Your task to perform on an android device: stop showing notifications on the lock screen Image 0: 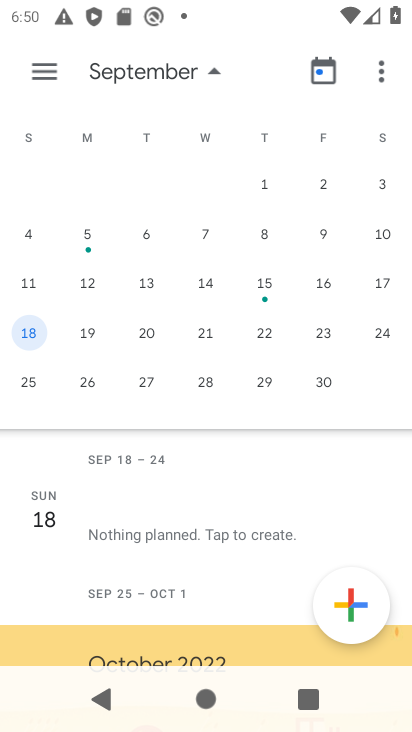
Step 0: press home button
Your task to perform on an android device: stop showing notifications on the lock screen Image 1: 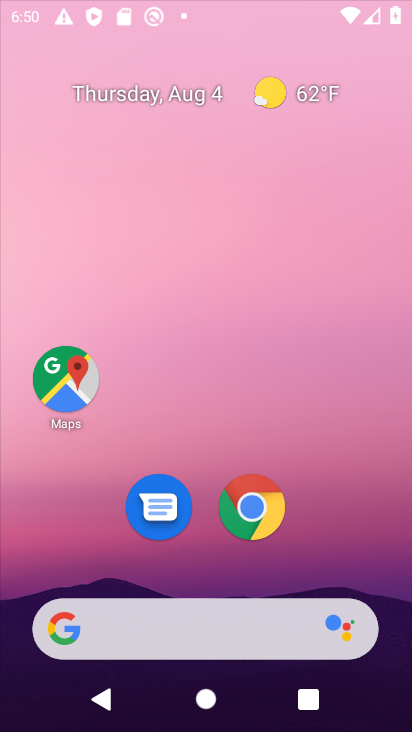
Step 1: drag from (404, 703) to (26, 255)
Your task to perform on an android device: stop showing notifications on the lock screen Image 2: 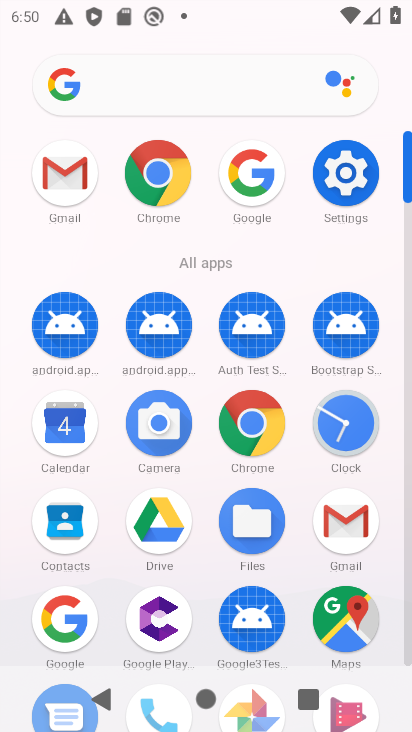
Step 2: click (358, 164)
Your task to perform on an android device: stop showing notifications on the lock screen Image 3: 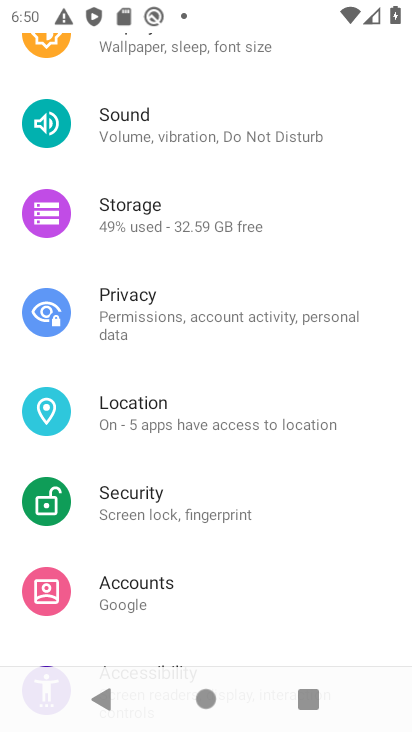
Step 3: drag from (188, 125) to (213, 593)
Your task to perform on an android device: stop showing notifications on the lock screen Image 4: 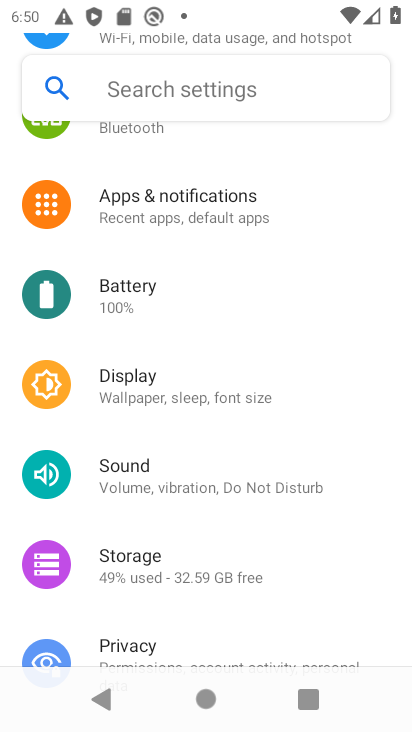
Step 4: click (161, 226)
Your task to perform on an android device: stop showing notifications on the lock screen Image 5: 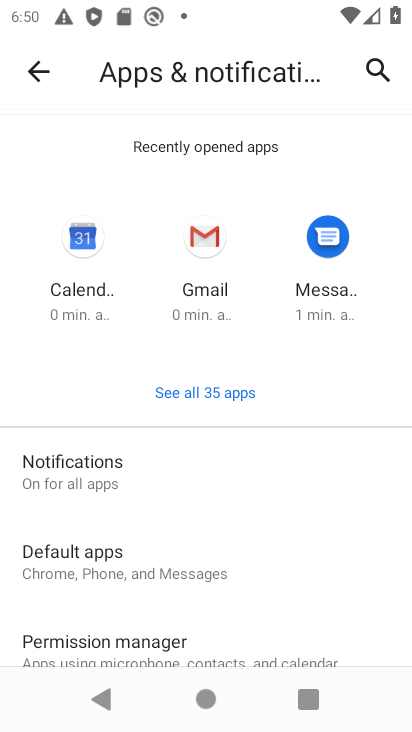
Step 5: click (115, 475)
Your task to perform on an android device: stop showing notifications on the lock screen Image 6: 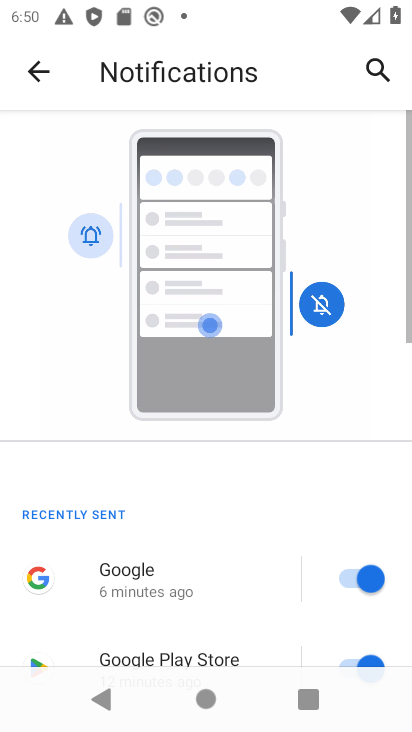
Step 6: drag from (260, 643) to (220, 15)
Your task to perform on an android device: stop showing notifications on the lock screen Image 7: 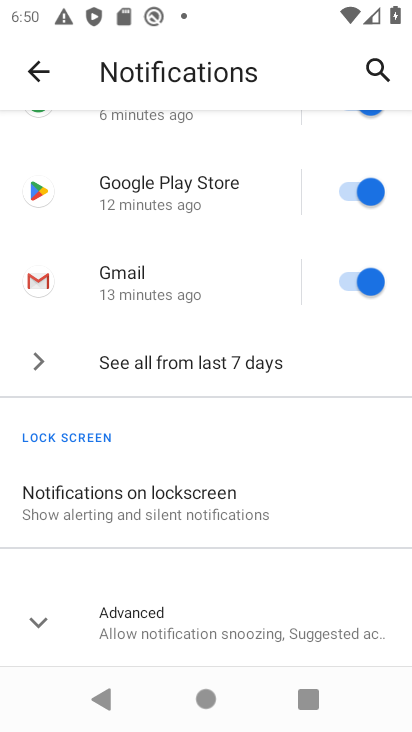
Step 7: click (161, 521)
Your task to perform on an android device: stop showing notifications on the lock screen Image 8: 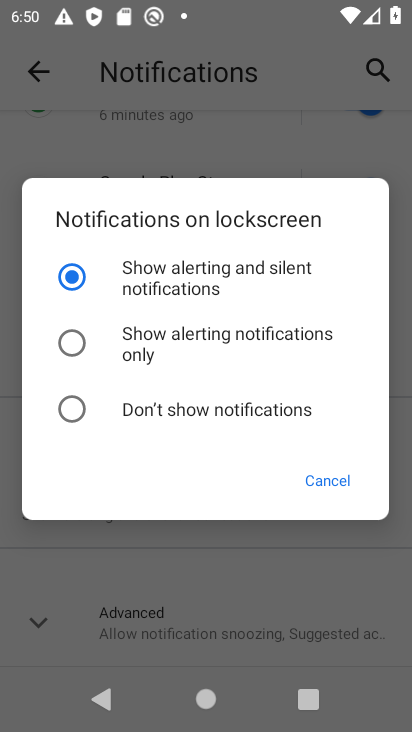
Step 8: click (76, 411)
Your task to perform on an android device: stop showing notifications on the lock screen Image 9: 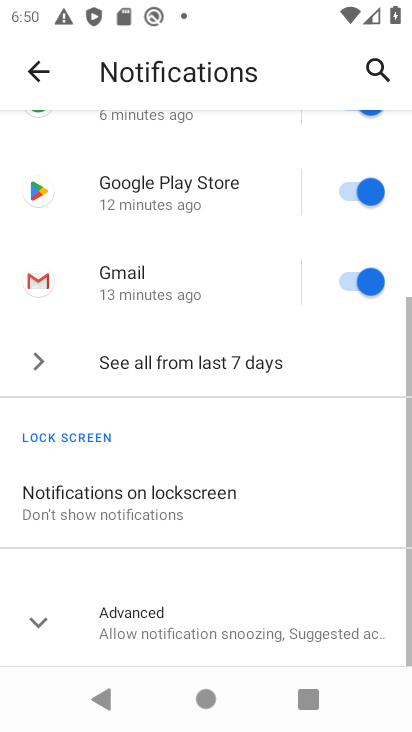
Step 9: task complete